Your task to perform on an android device: set an alarm Image 0: 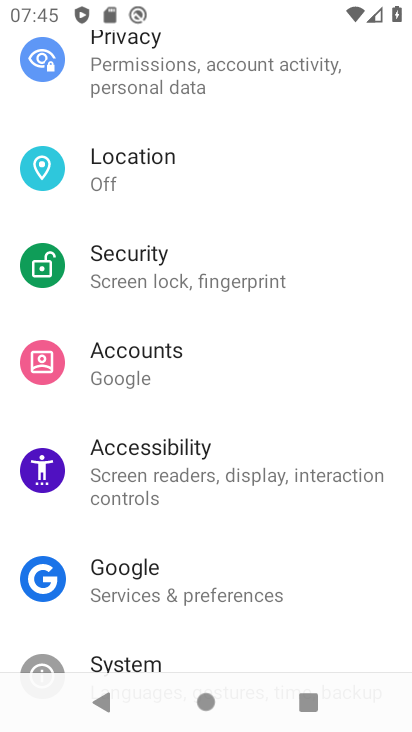
Step 0: press home button
Your task to perform on an android device: set an alarm Image 1: 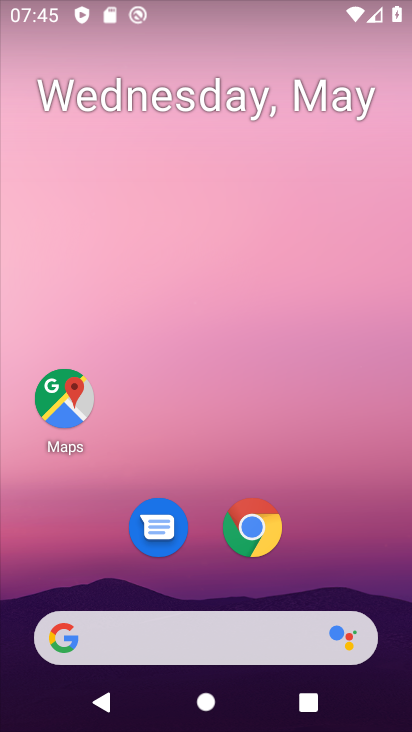
Step 1: drag from (347, 481) to (330, 20)
Your task to perform on an android device: set an alarm Image 2: 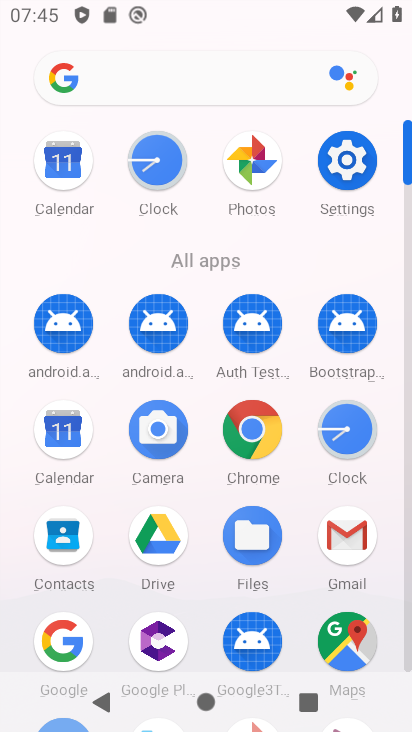
Step 2: click (351, 413)
Your task to perform on an android device: set an alarm Image 3: 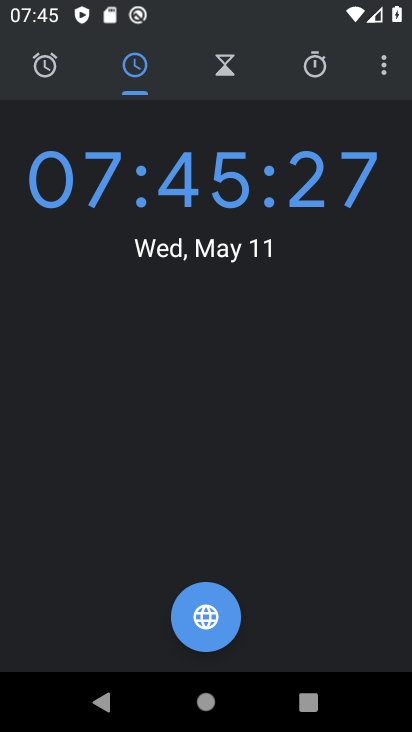
Step 3: click (33, 59)
Your task to perform on an android device: set an alarm Image 4: 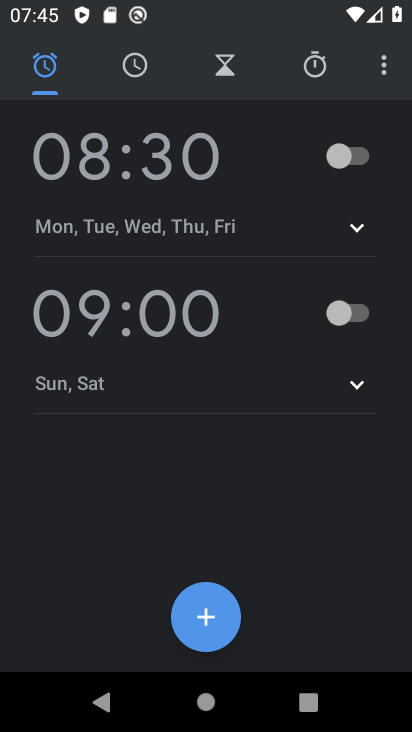
Step 4: click (223, 606)
Your task to perform on an android device: set an alarm Image 5: 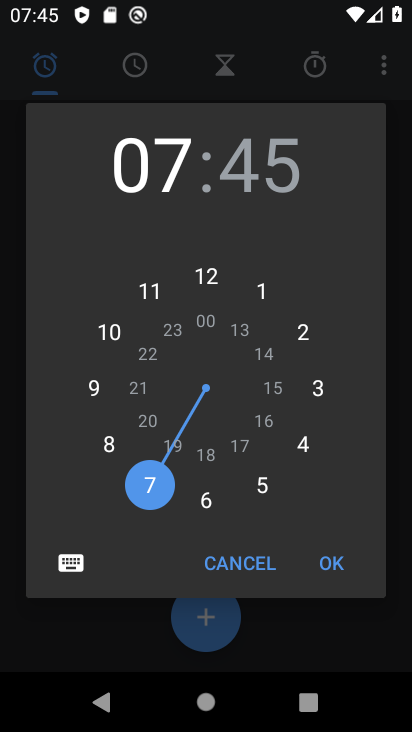
Step 5: click (319, 560)
Your task to perform on an android device: set an alarm Image 6: 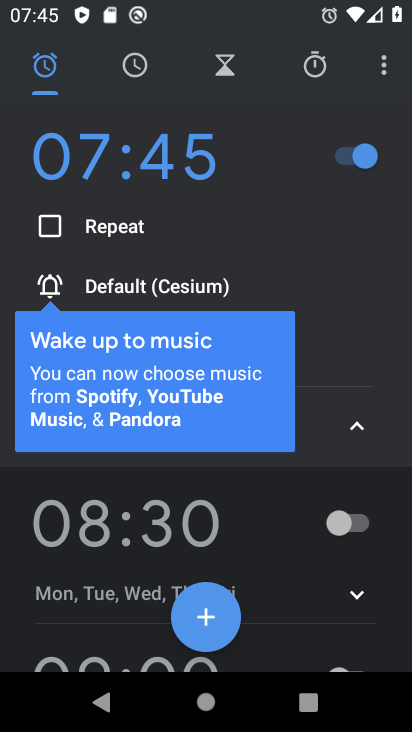
Step 6: task complete